Your task to perform on an android device: turn on bluetooth scan Image 0: 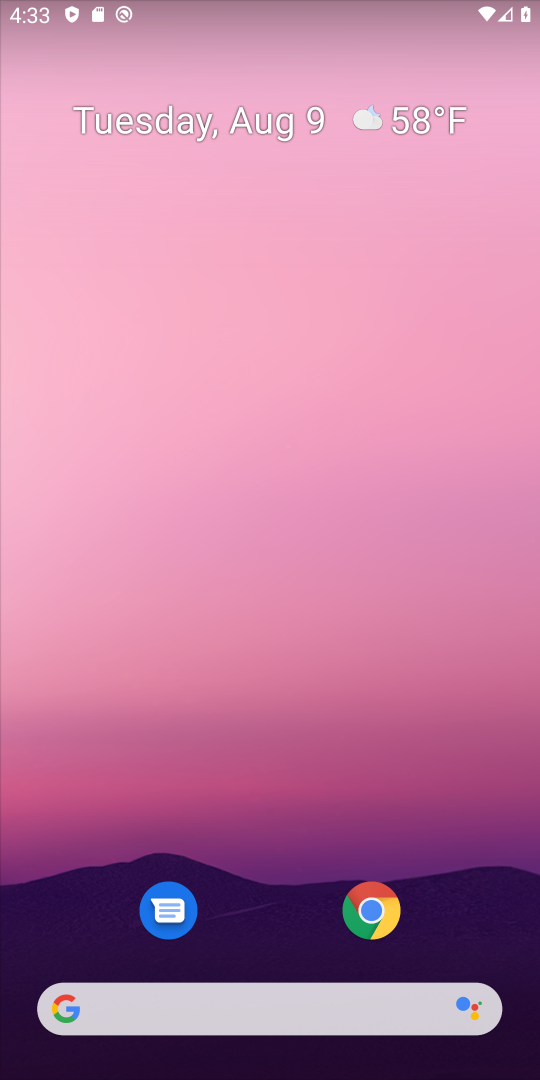
Step 0: press back button
Your task to perform on an android device: turn on bluetooth scan Image 1: 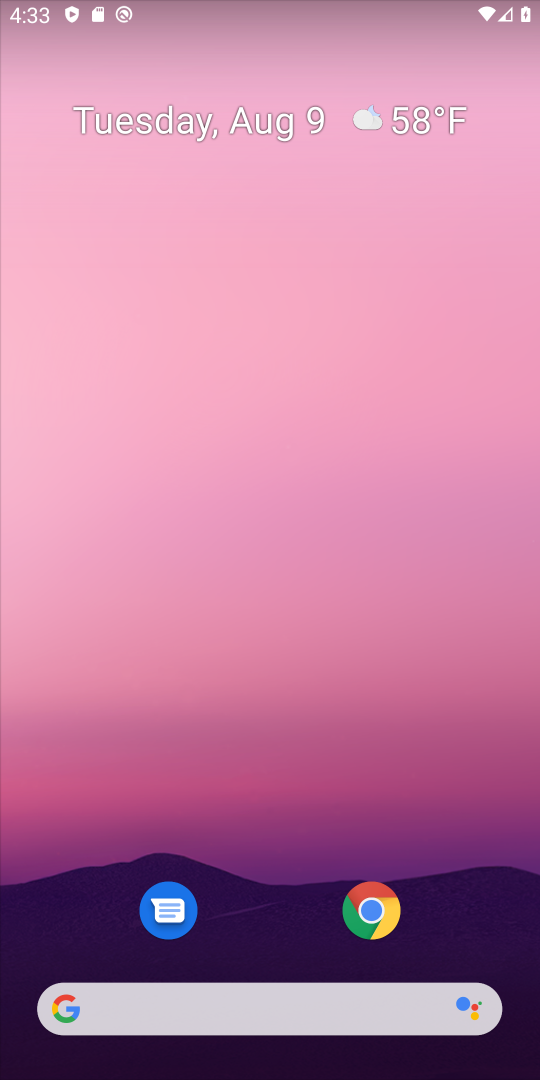
Step 1: drag from (295, 431) to (171, 335)
Your task to perform on an android device: turn on bluetooth scan Image 2: 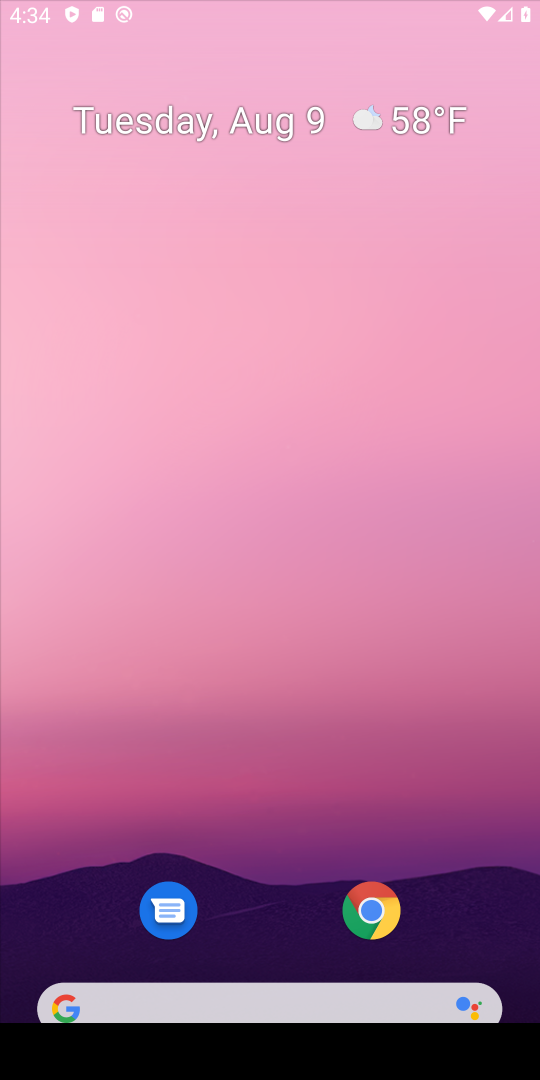
Step 2: drag from (259, 699) to (313, 430)
Your task to perform on an android device: turn on bluetooth scan Image 3: 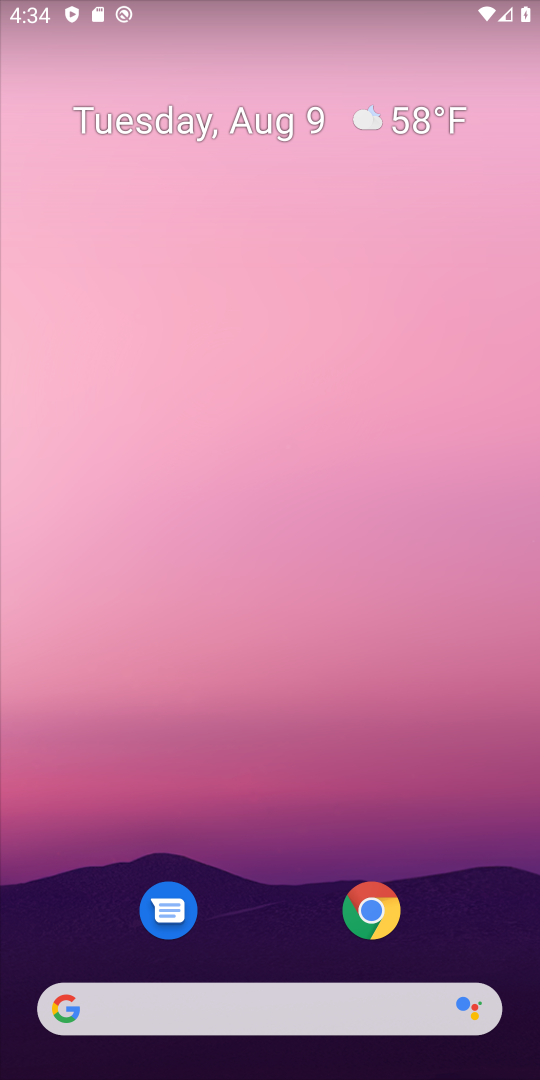
Step 3: drag from (291, 637) to (248, 395)
Your task to perform on an android device: turn on bluetooth scan Image 4: 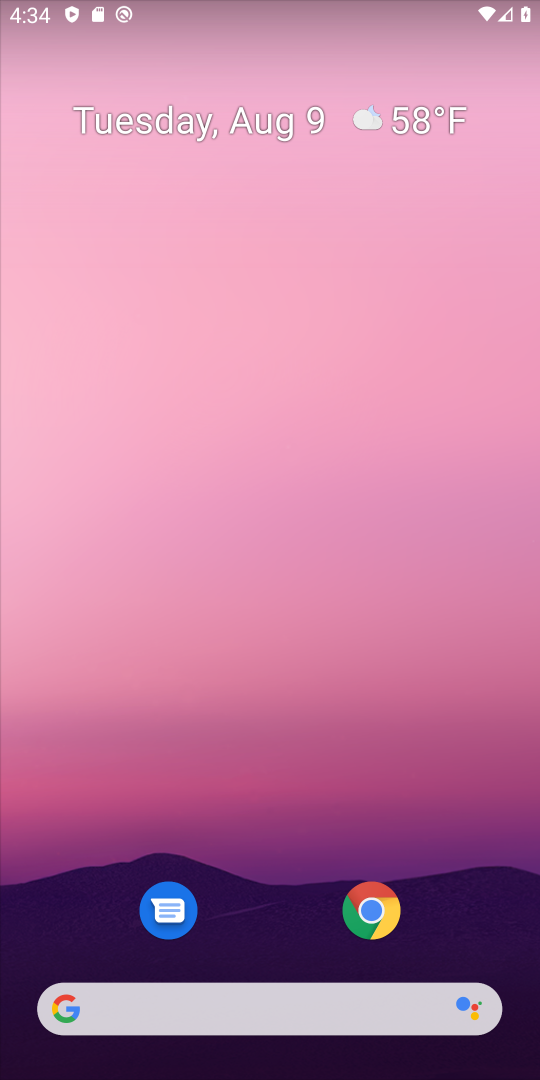
Step 4: drag from (282, 812) to (263, 551)
Your task to perform on an android device: turn on bluetooth scan Image 5: 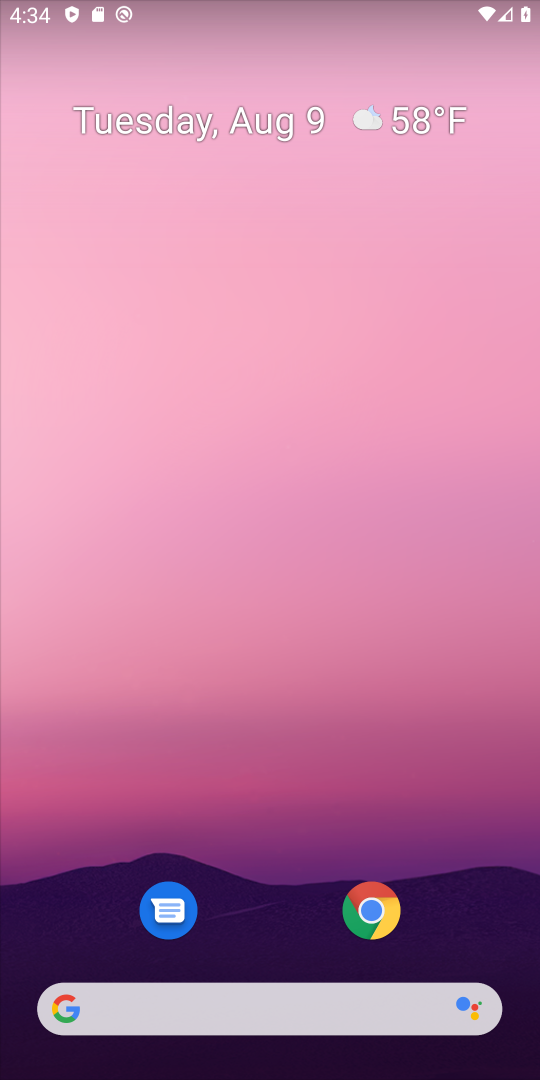
Step 5: drag from (180, 544) to (231, 395)
Your task to perform on an android device: turn on bluetooth scan Image 6: 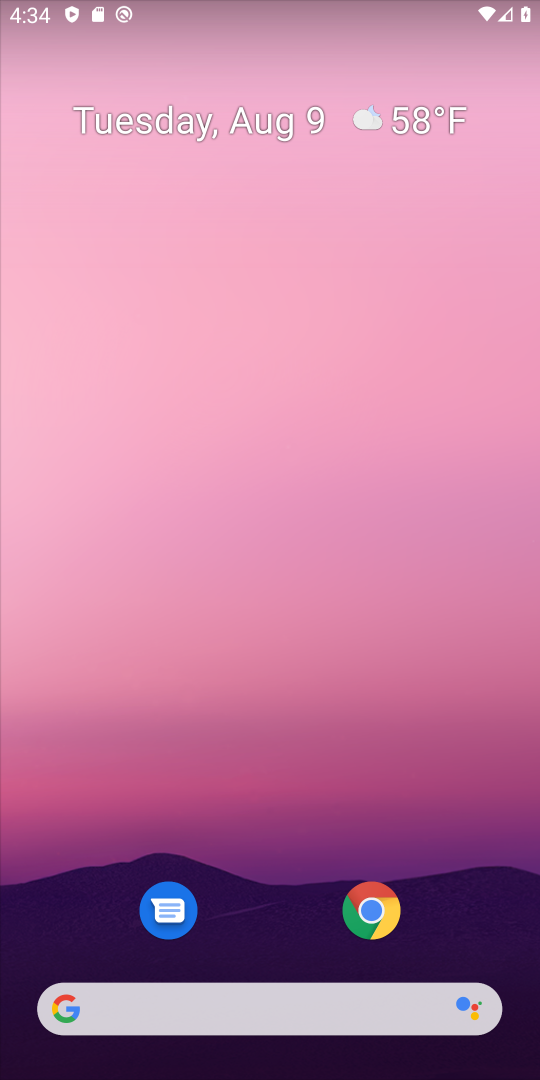
Step 6: click (156, 739)
Your task to perform on an android device: turn on bluetooth scan Image 7: 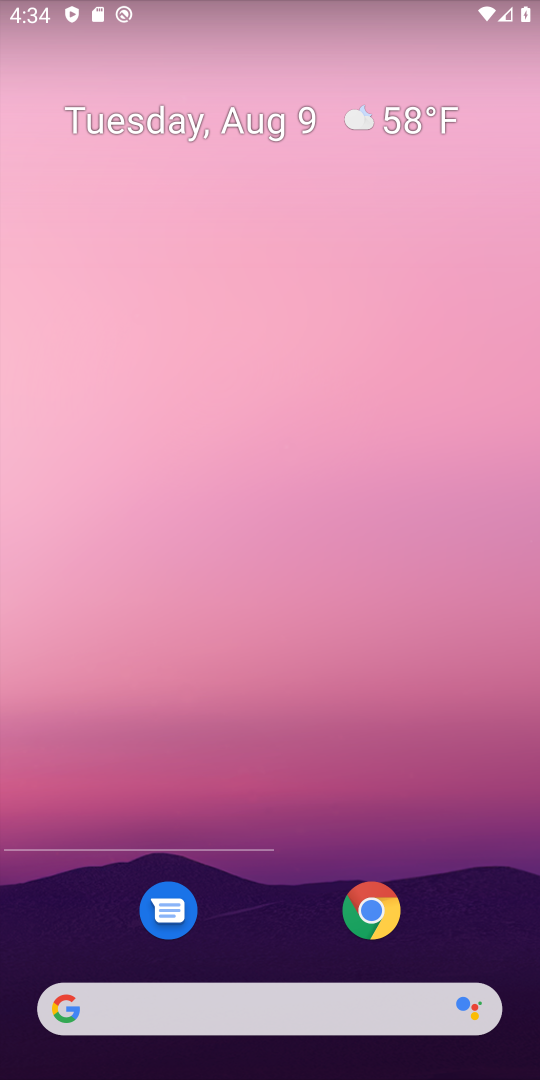
Step 7: drag from (289, 898) to (224, 305)
Your task to perform on an android device: turn on bluetooth scan Image 8: 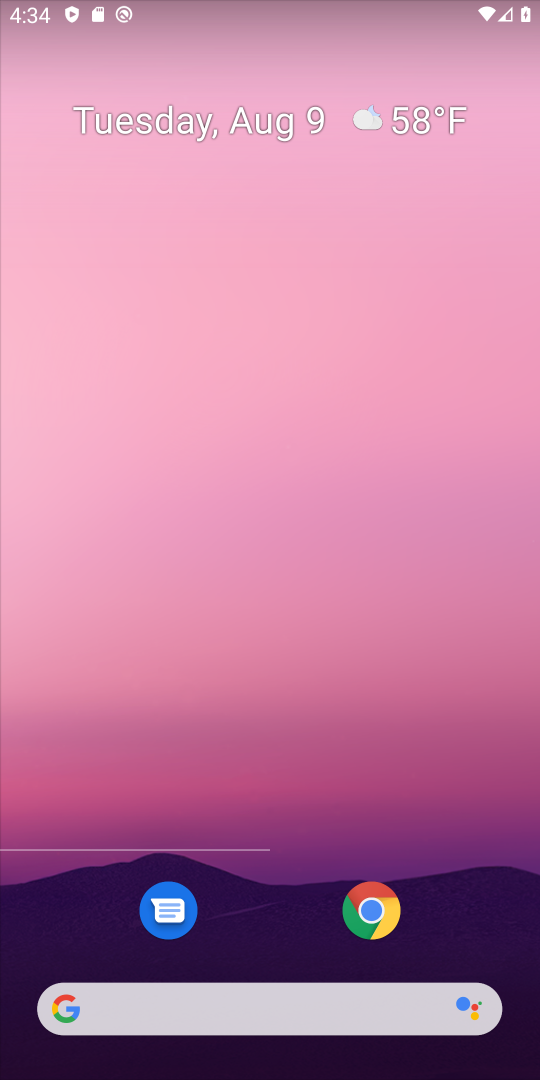
Step 8: drag from (253, 812) to (226, 601)
Your task to perform on an android device: turn on bluetooth scan Image 9: 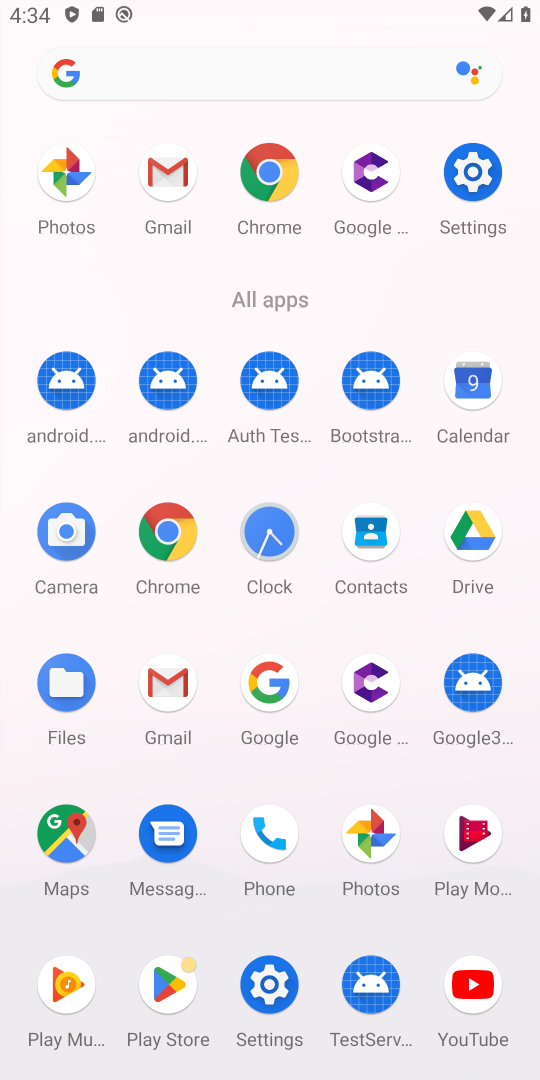
Step 9: click (465, 169)
Your task to perform on an android device: turn on bluetooth scan Image 10: 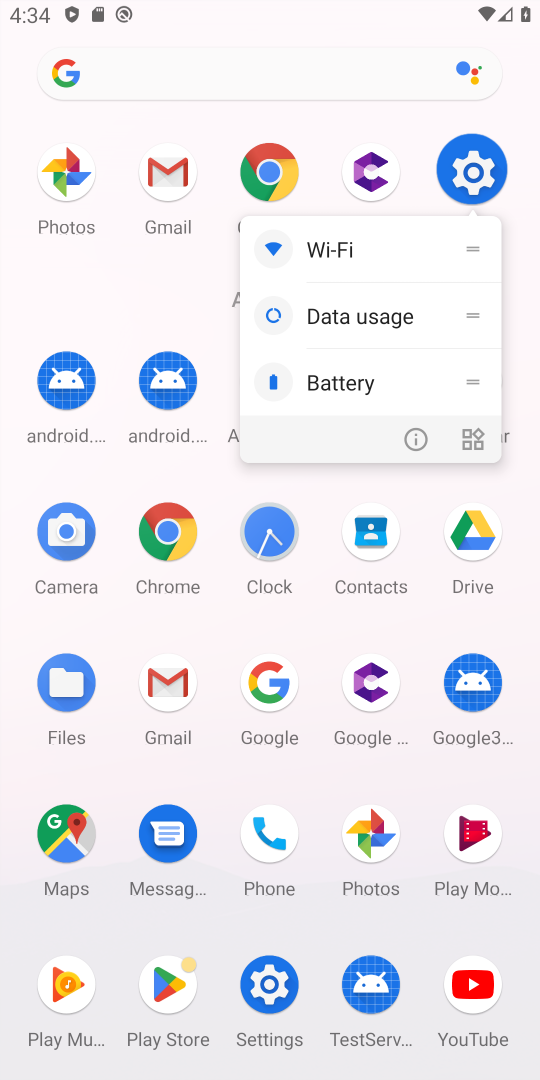
Step 10: click (462, 171)
Your task to perform on an android device: turn on bluetooth scan Image 11: 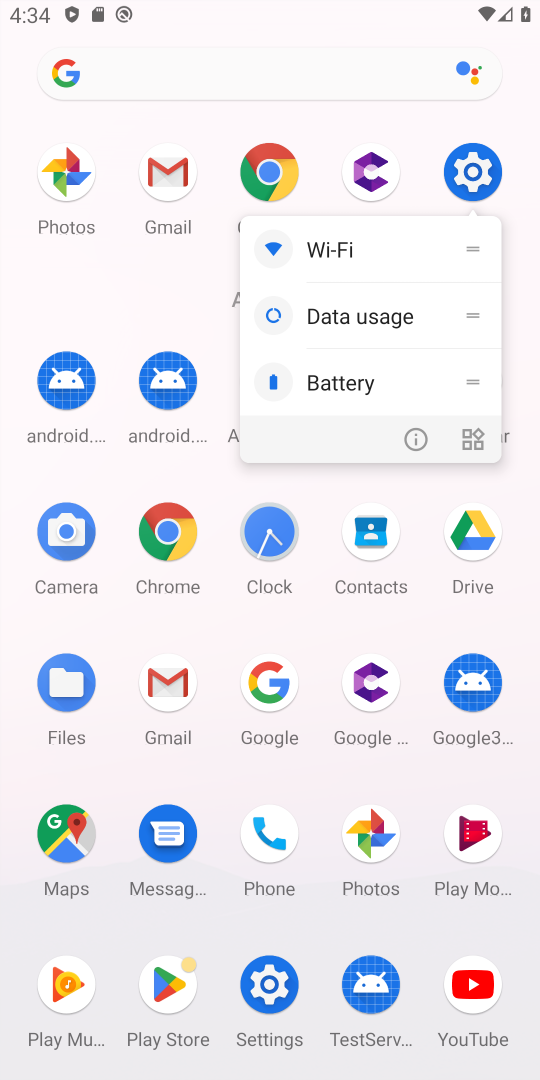
Step 11: click (458, 138)
Your task to perform on an android device: turn on bluetooth scan Image 12: 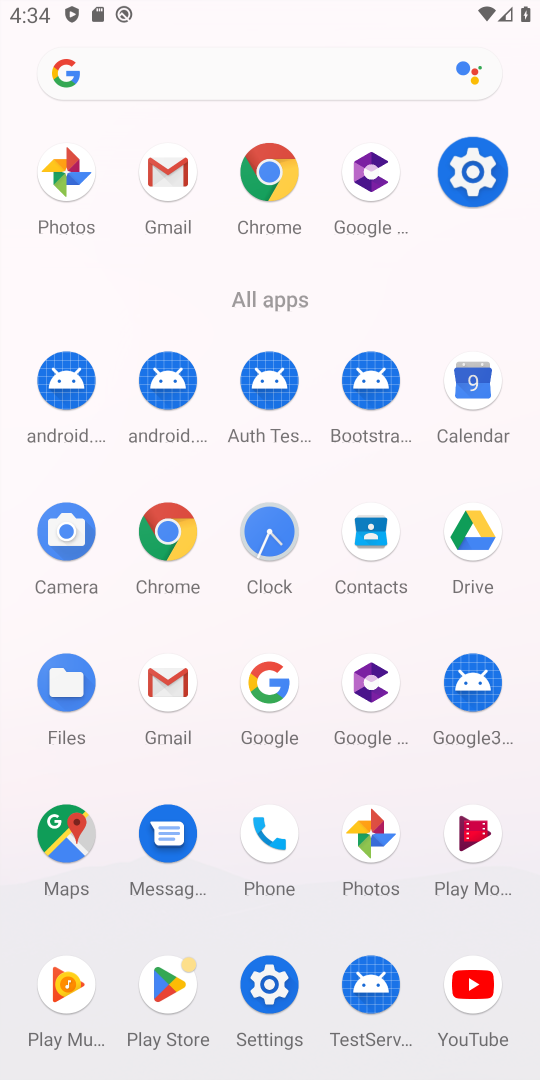
Step 12: click (462, 146)
Your task to perform on an android device: turn on bluetooth scan Image 13: 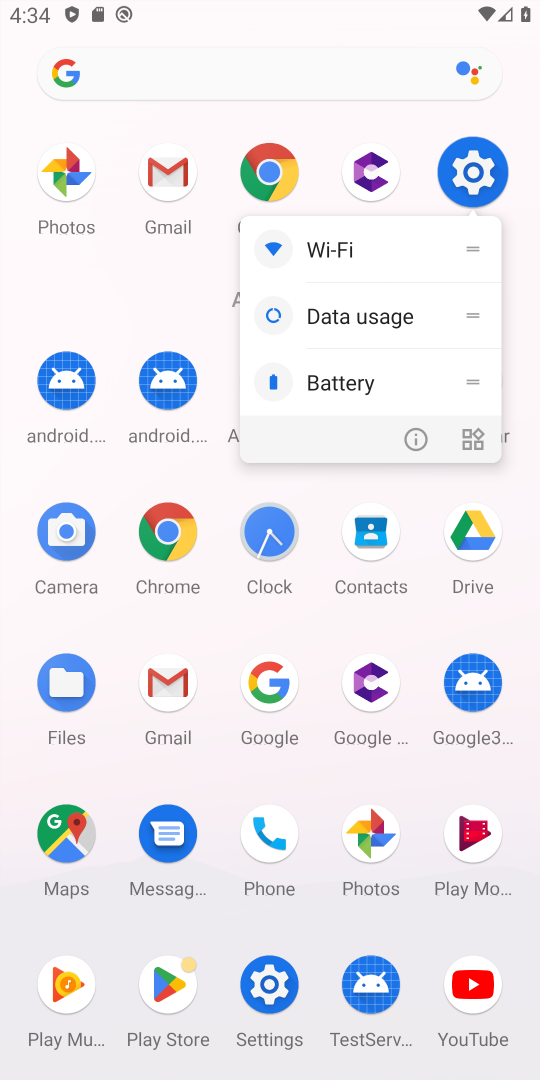
Step 13: click (470, 167)
Your task to perform on an android device: turn on bluetooth scan Image 14: 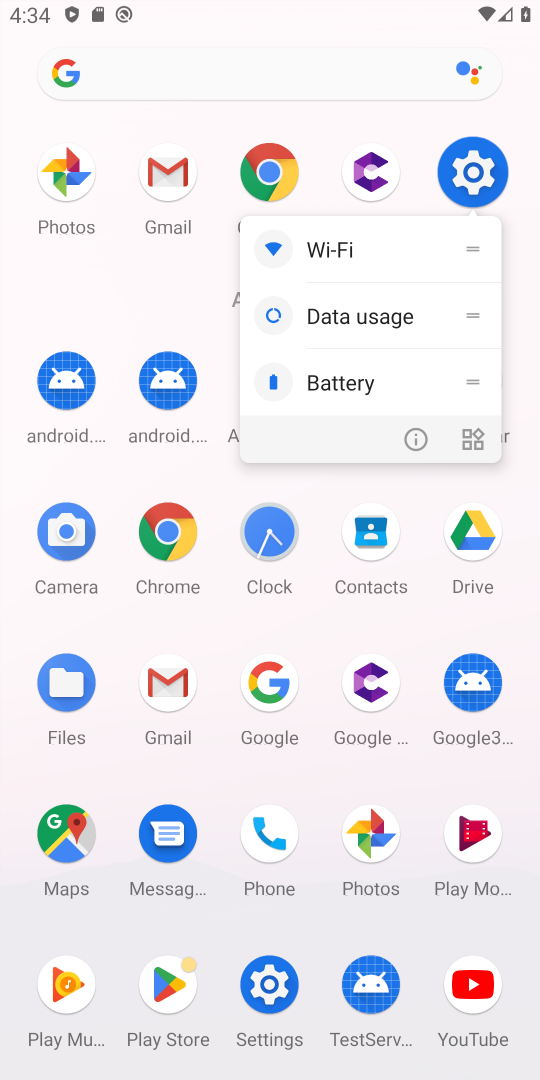
Step 14: click (469, 168)
Your task to perform on an android device: turn on bluetooth scan Image 15: 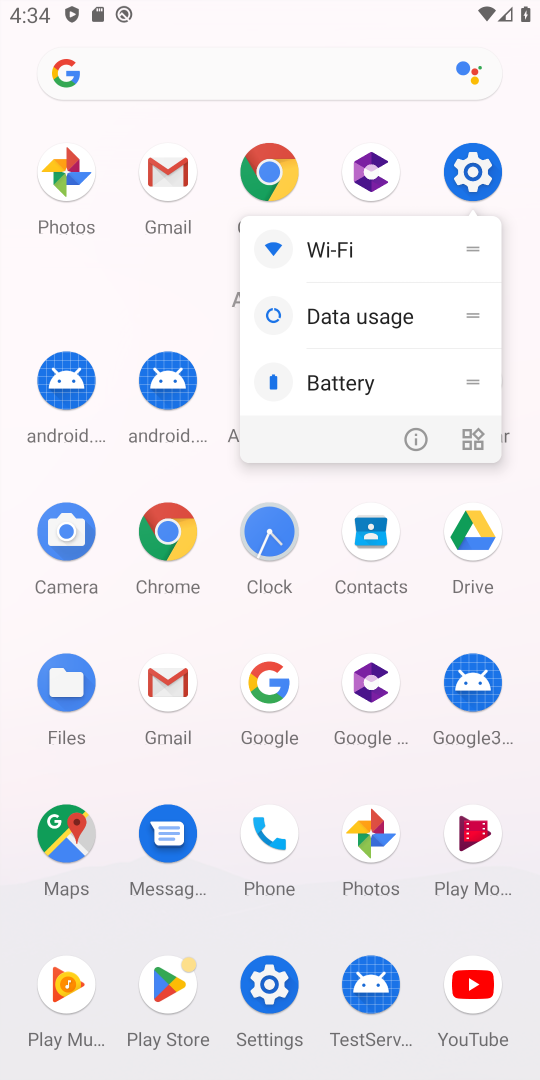
Step 15: click (469, 168)
Your task to perform on an android device: turn on bluetooth scan Image 16: 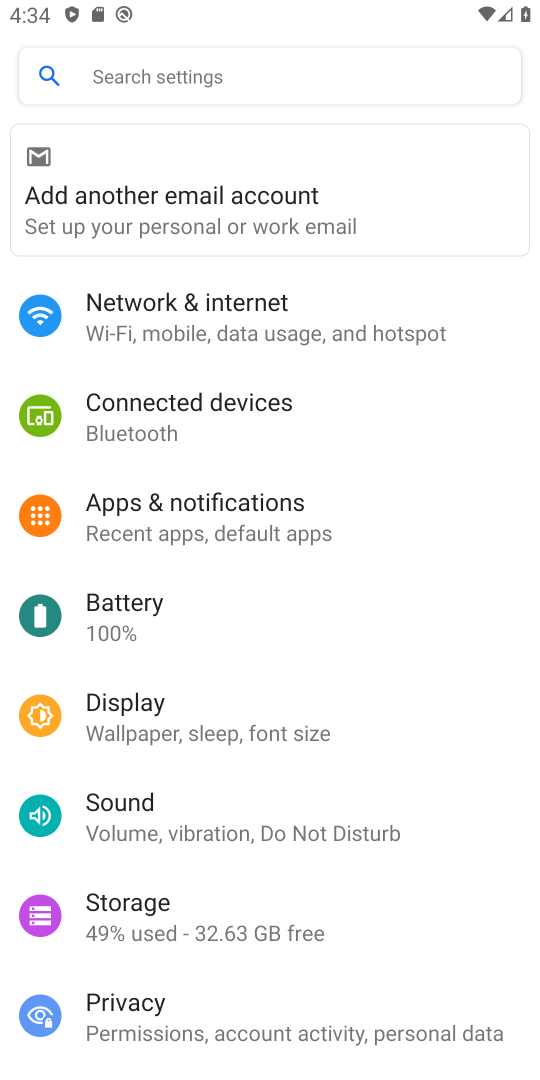
Step 16: drag from (188, 837) to (119, 351)
Your task to perform on an android device: turn on bluetooth scan Image 17: 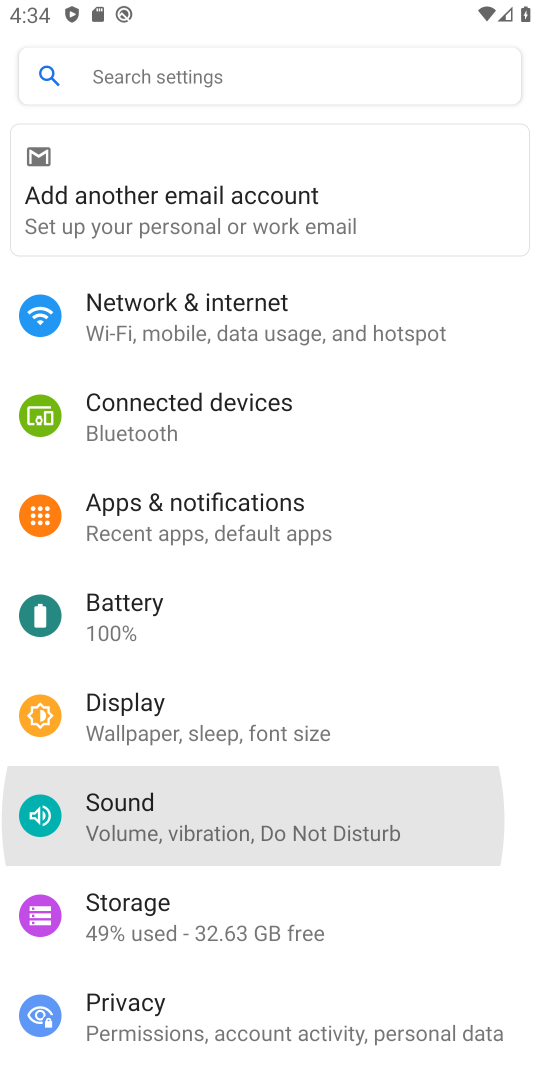
Step 17: click (112, 410)
Your task to perform on an android device: turn on bluetooth scan Image 18: 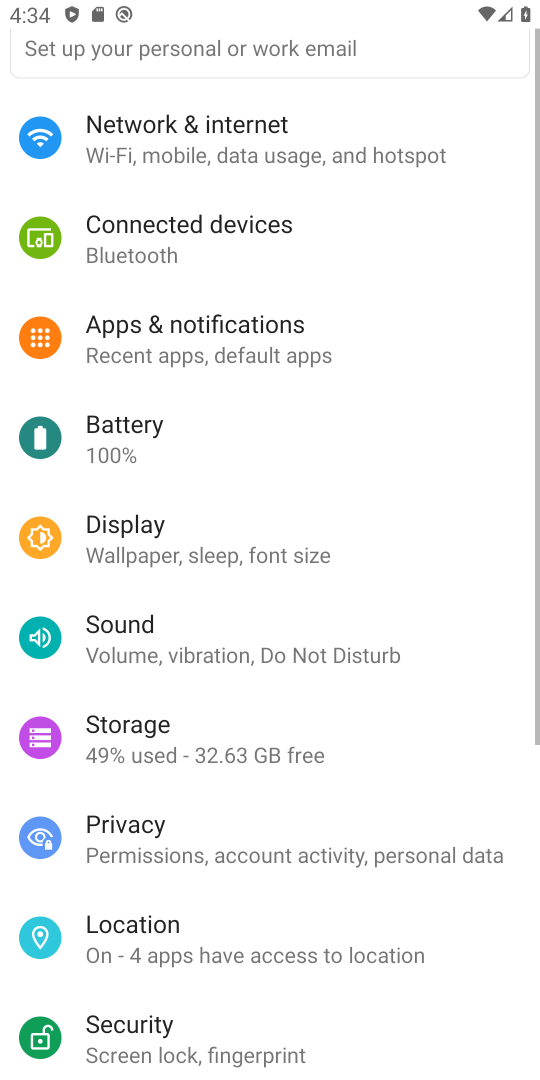
Step 18: drag from (173, 835) to (174, 448)
Your task to perform on an android device: turn on bluetooth scan Image 19: 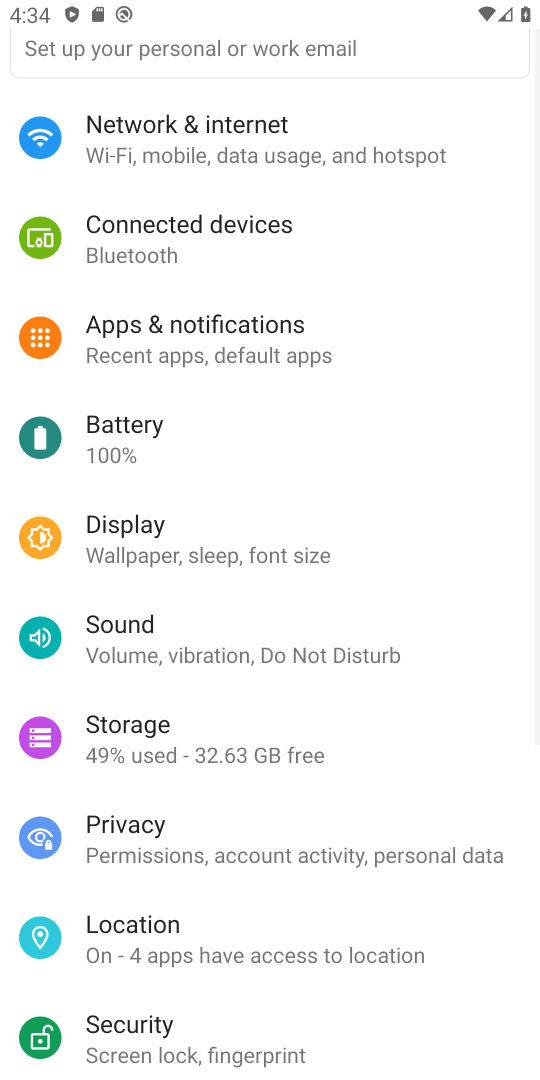
Step 19: drag from (218, 834) to (224, 431)
Your task to perform on an android device: turn on bluetooth scan Image 20: 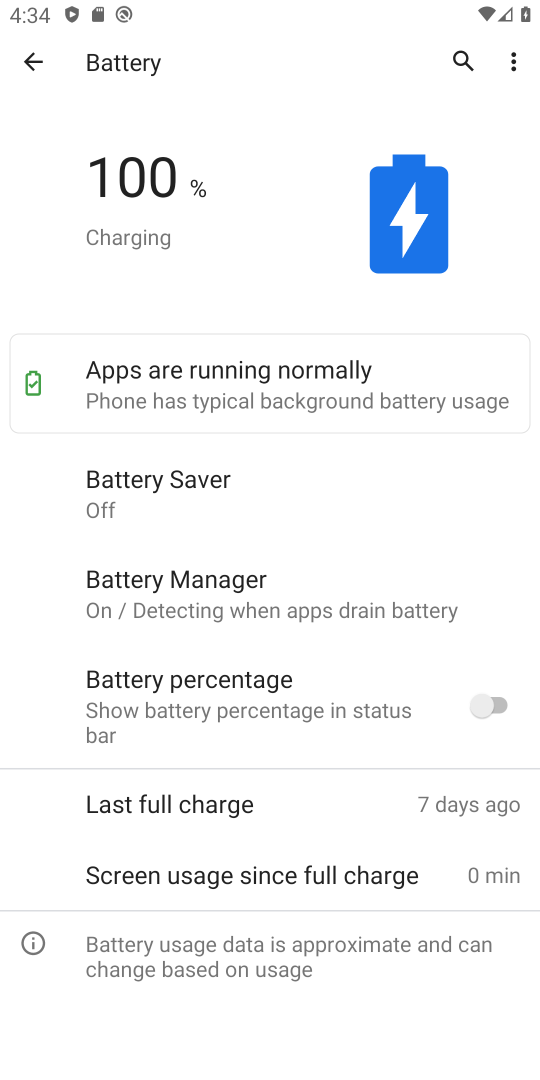
Step 20: click (34, 67)
Your task to perform on an android device: turn on bluetooth scan Image 21: 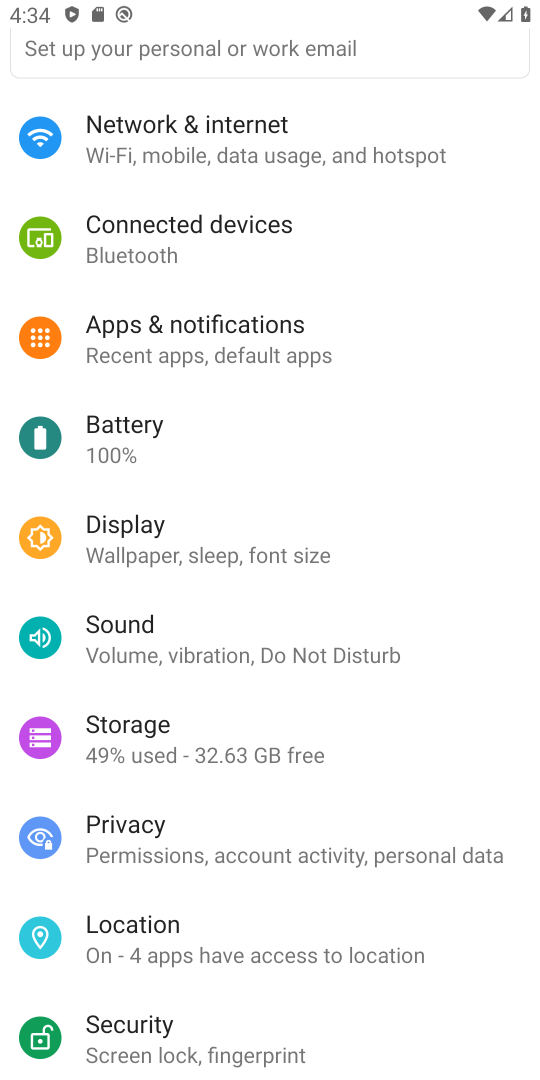
Step 21: click (140, 926)
Your task to perform on an android device: turn on bluetooth scan Image 22: 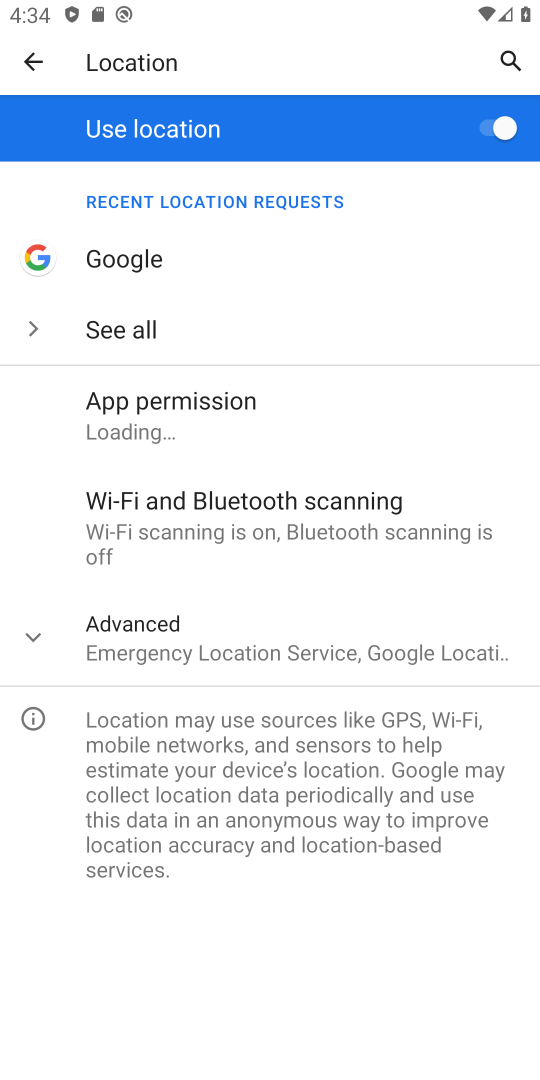
Step 22: click (109, 431)
Your task to perform on an android device: turn on bluetooth scan Image 23: 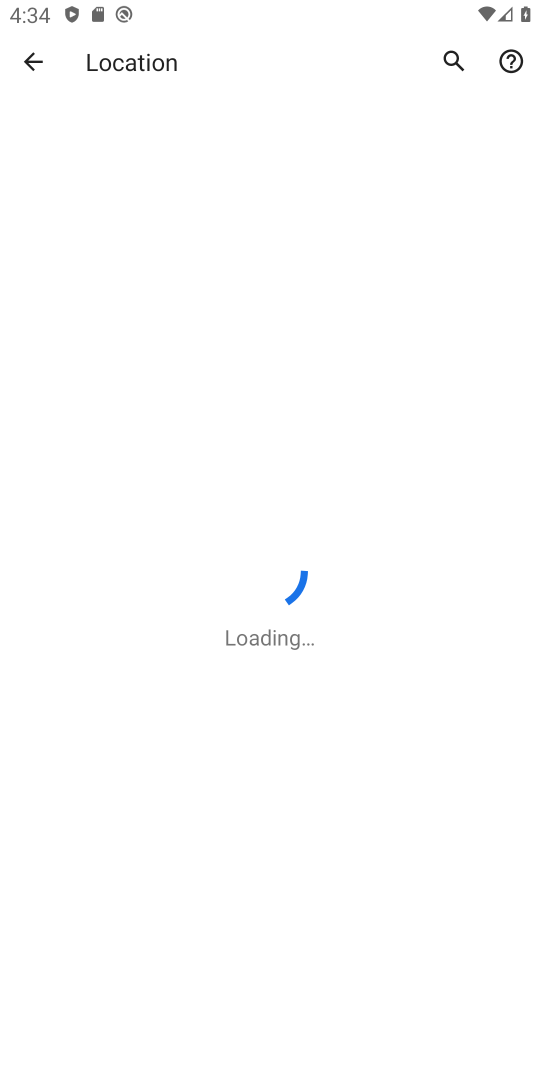
Step 23: click (34, 60)
Your task to perform on an android device: turn on bluetooth scan Image 24: 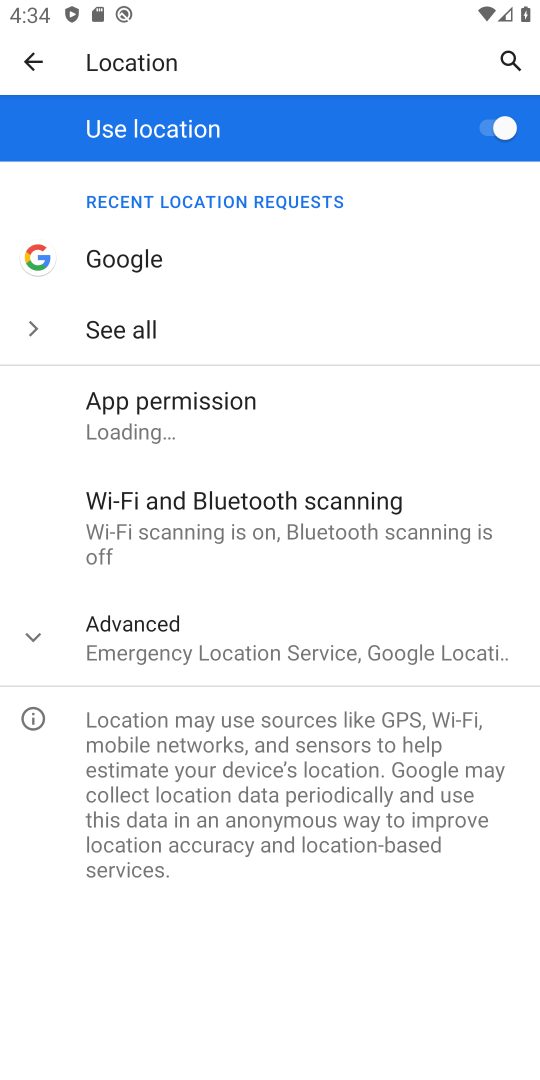
Step 24: click (171, 546)
Your task to perform on an android device: turn on bluetooth scan Image 25: 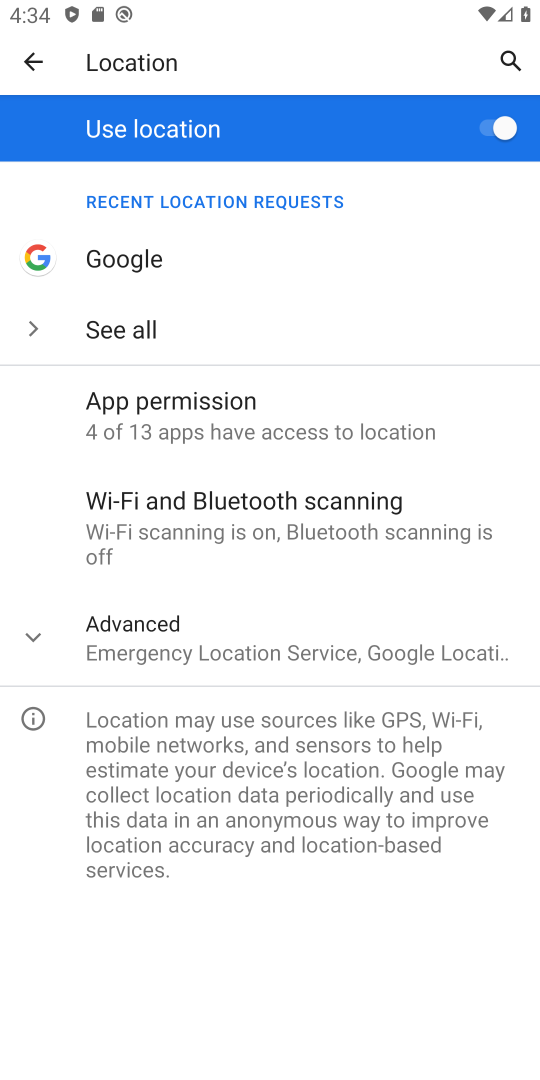
Step 25: click (169, 526)
Your task to perform on an android device: turn on bluetooth scan Image 26: 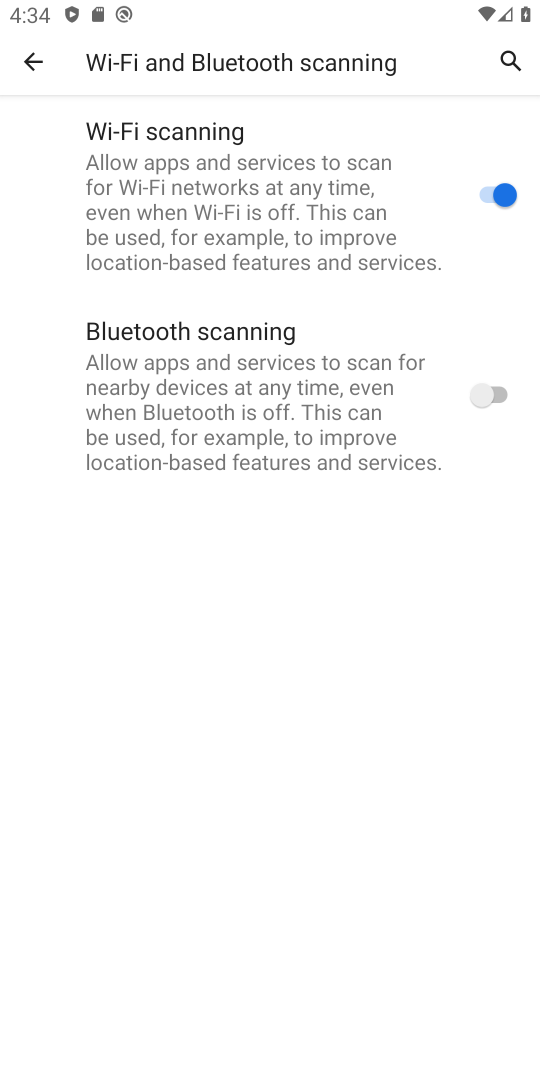
Step 26: click (477, 378)
Your task to perform on an android device: turn on bluetooth scan Image 27: 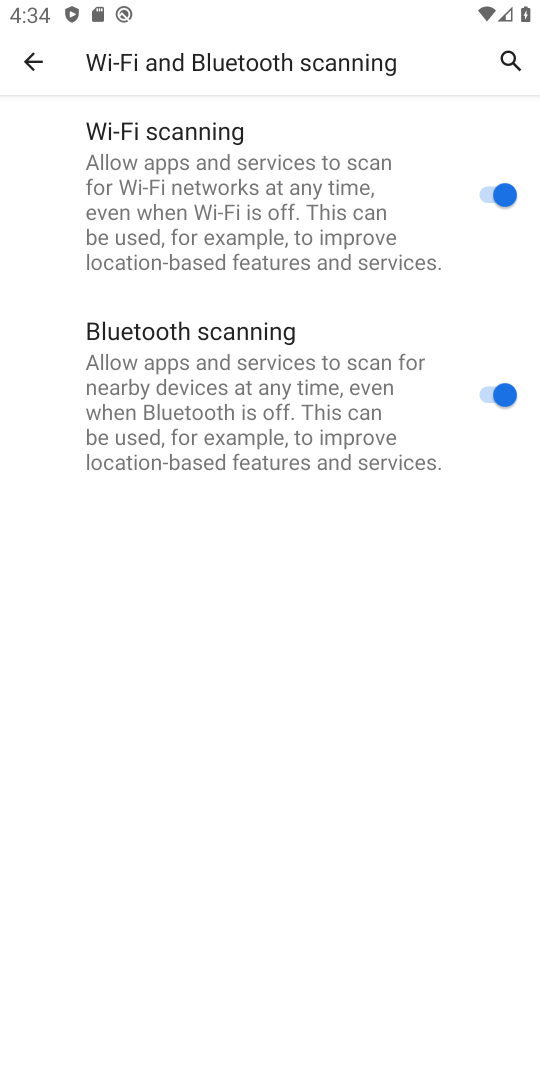
Step 27: task complete